Your task to perform on an android device: Open settings Image 0: 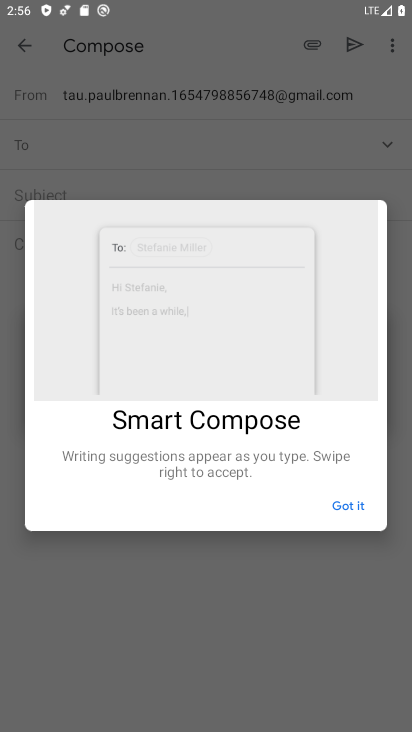
Step 0: click (353, 504)
Your task to perform on an android device: Open settings Image 1: 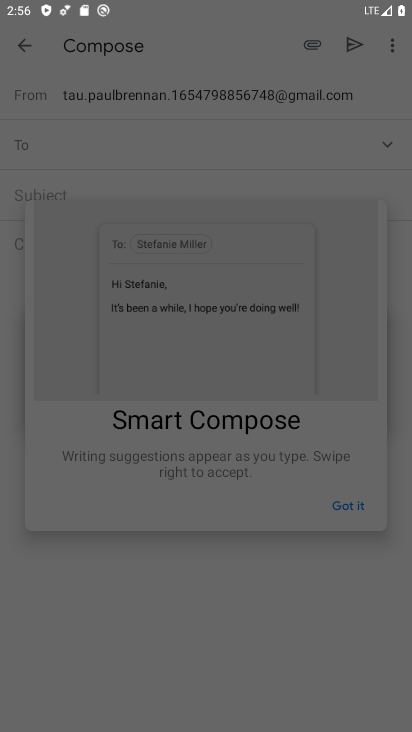
Step 1: press home button
Your task to perform on an android device: Open settings Image 2: 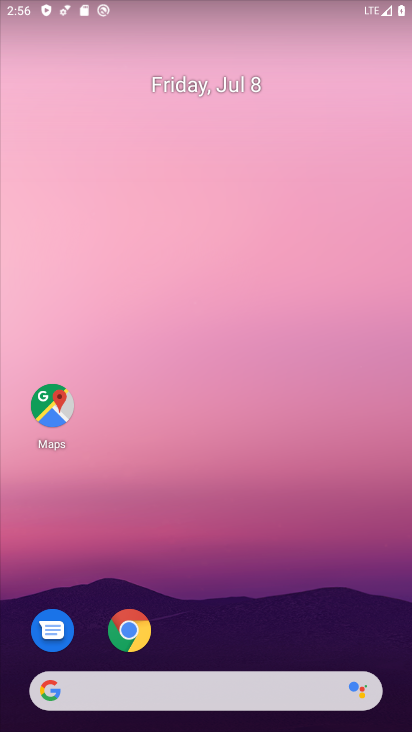
Step 2: drag from (298, 449) to (292, 224)
Your task to perform on an android device: Open settings Image 3: 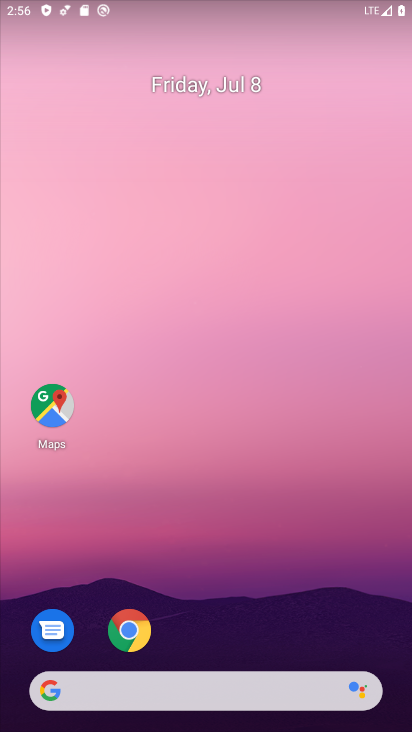
Step 3: drag from (320, 573) to (299, 170)
Your task to perform on an android device: Open settings Image 4: 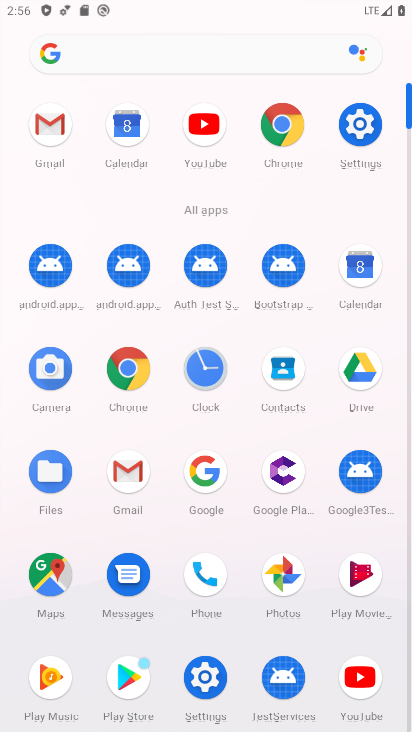
Step 4: click (358, 121)
Your task to perform on an android device: Open settings Image 5: 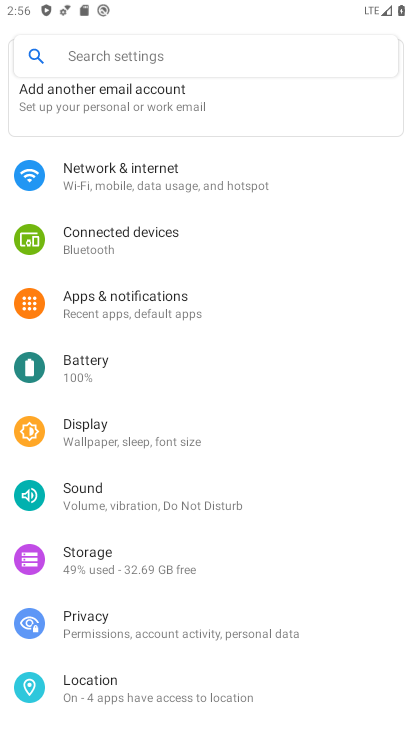
Step 5: task complete